Your task to perform on an android device: Show me the alarms in the clock app Image 0: 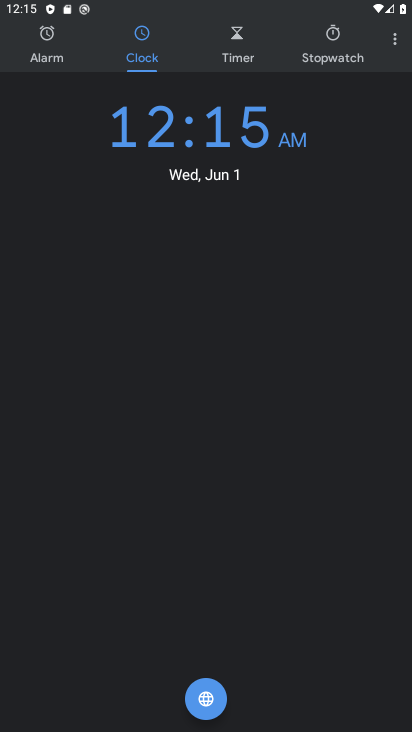
Step 0: press home button
Your task to perform on an android device: Show me the alarms in the clock app Image 1: 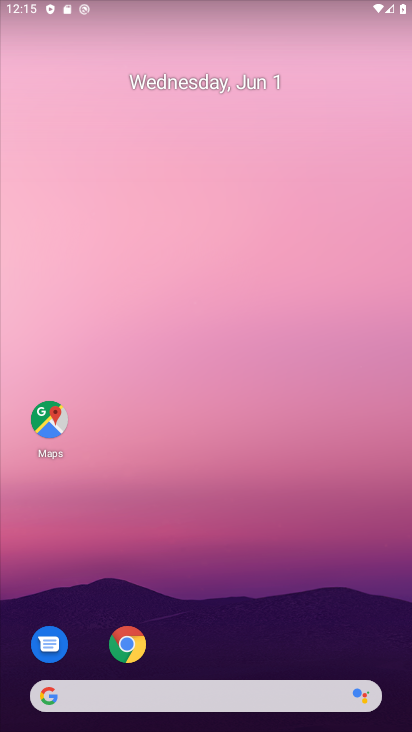
Step 1: drag from (246, 628) to (169, 0)
Your task to perform on an android device: Show me the alarms in the clock app Image 2: 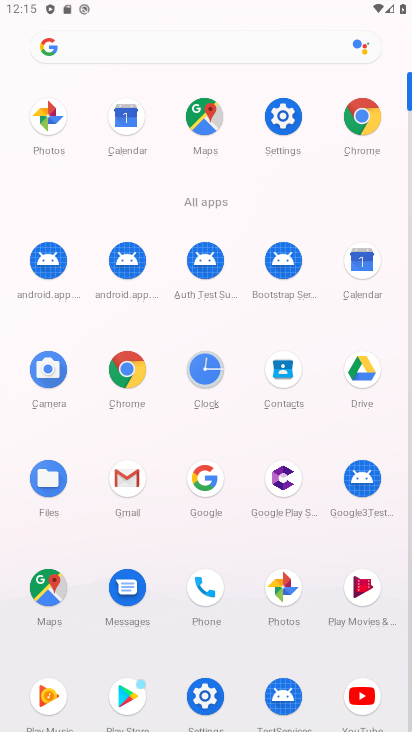
Step 2: click (225, 401)
Your task to perform on an android device: Show me the alarms in the clock app Image 3: 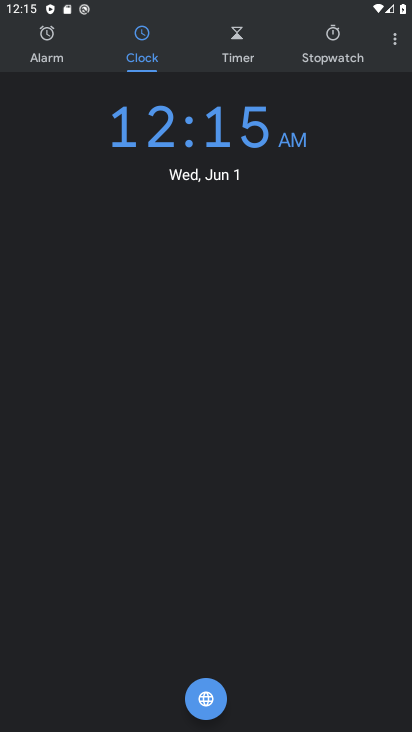
Step 3: click (59, 48)
Your task to perform on an android device: Show me the alarms in the clock app Image 4: 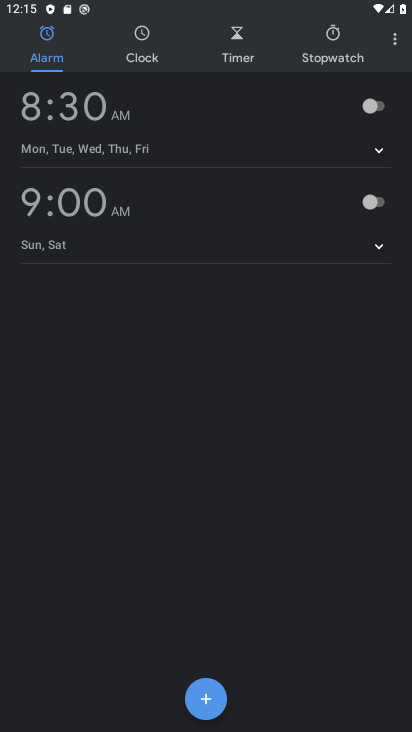
Step 4: task complete